Your task to perform on an android device: Add "bose quietcomfort 35" to the cart on walmart.com Image 0: 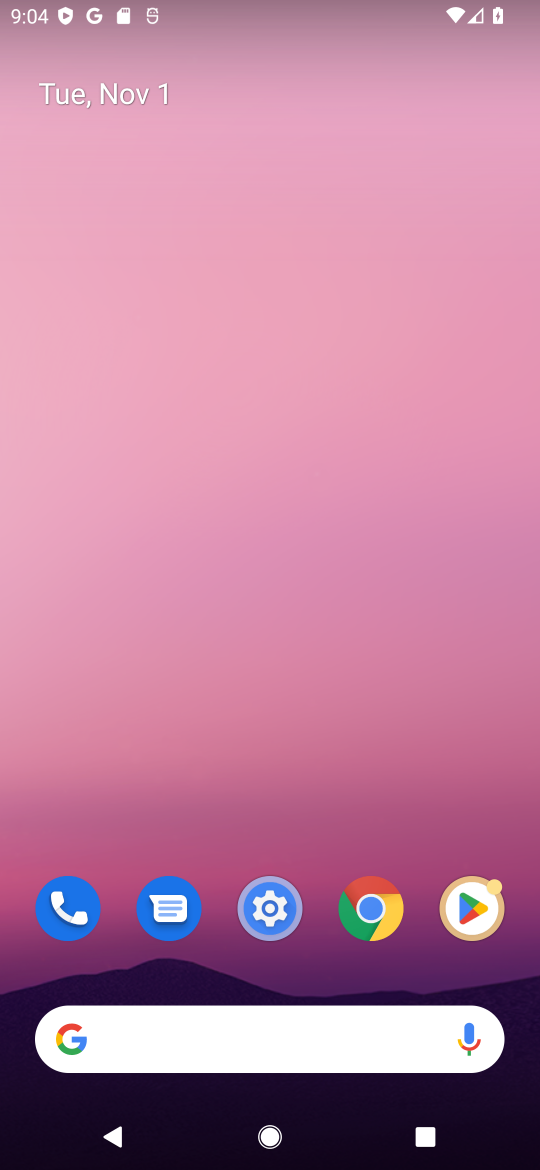
Step 0: click (373, 917)
Your task to perform on an android device: Add "bose quietcomfort 35" to the cart on walmart.com Image 1: 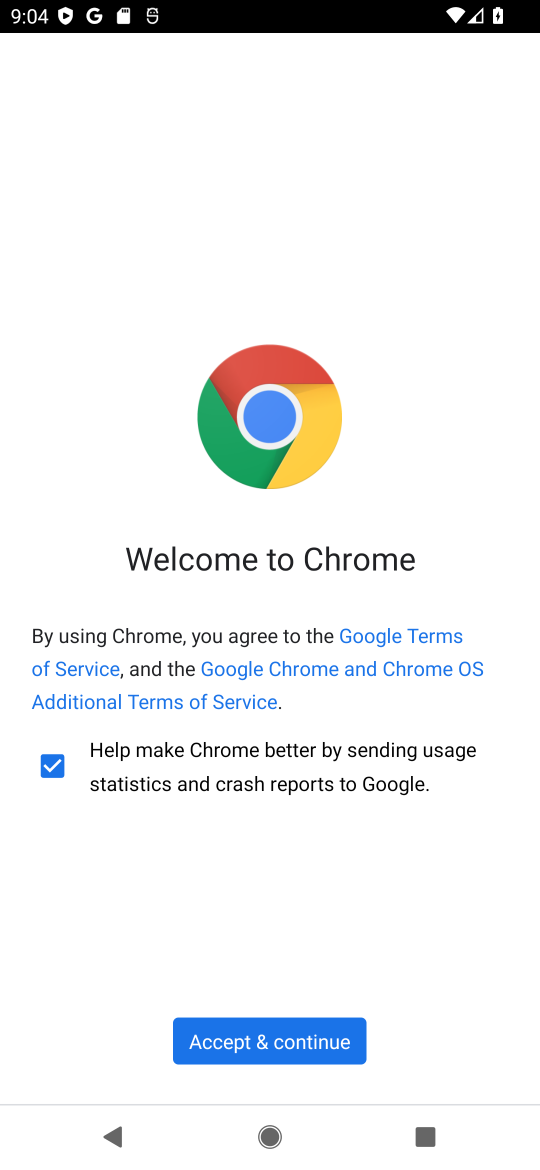
Step 1: click (312, 1054)
Your task to perform on an android device: Add "bose quietcomfort 35" to the cart on walmart.com Image 2: 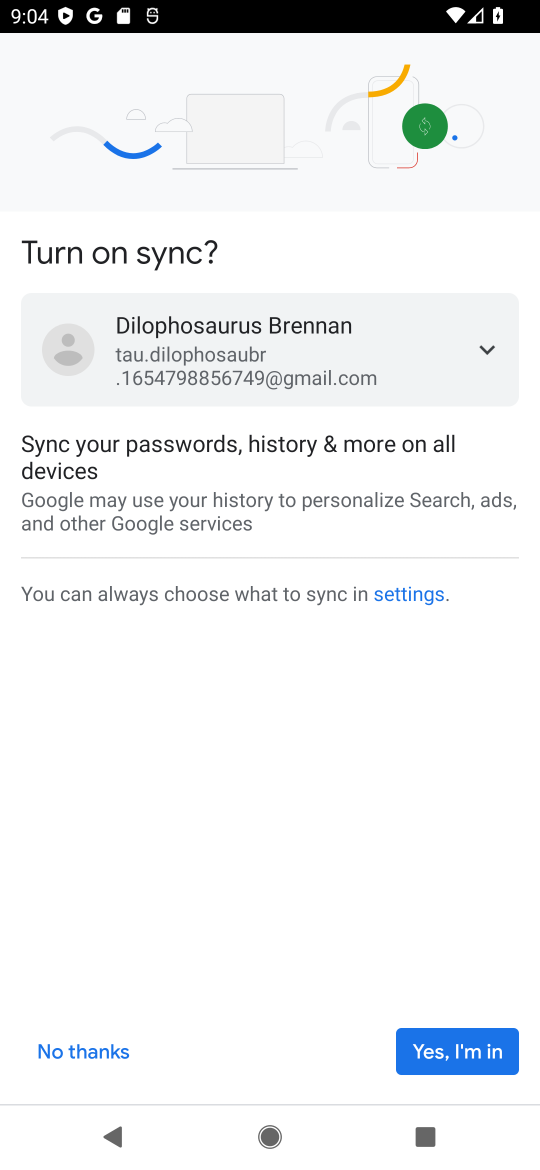
Step 2: click (448, 1041)
Your task to perform on an android device: Add "bose quietcomfort 35" to the cart on walmart.com Image 3: 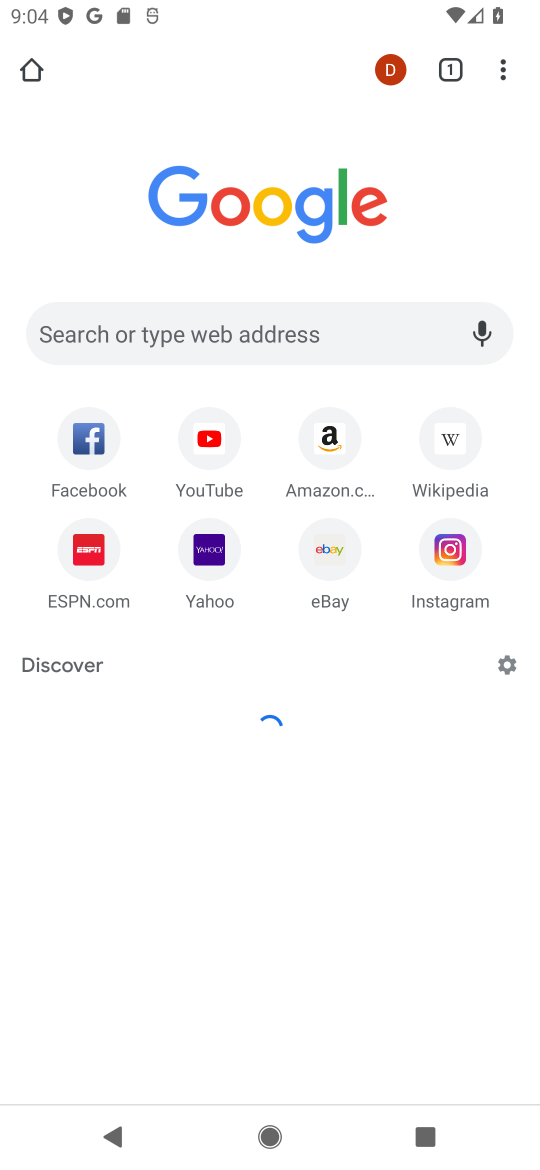
Step 3: click (283, 319)
Your task to perform on an android device: Add "bose quietcomfort 35" to the cart on walmart.com Image 4: 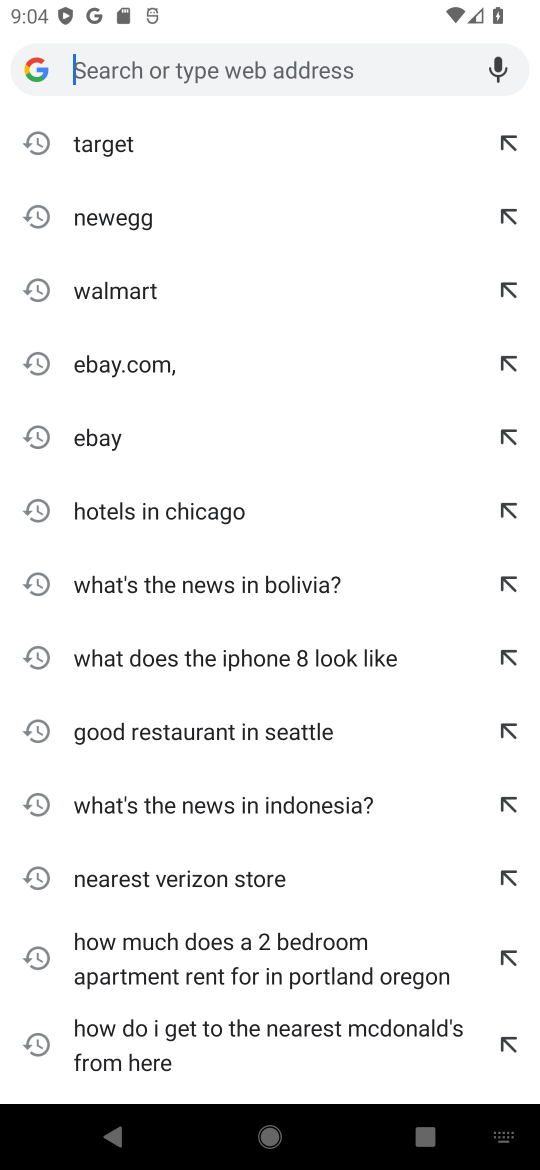
Step 4: type "walmart.com"
Your task to perform on an android device: Add "bose quietcomfort 35" to the cart on walmart.com Image 5: 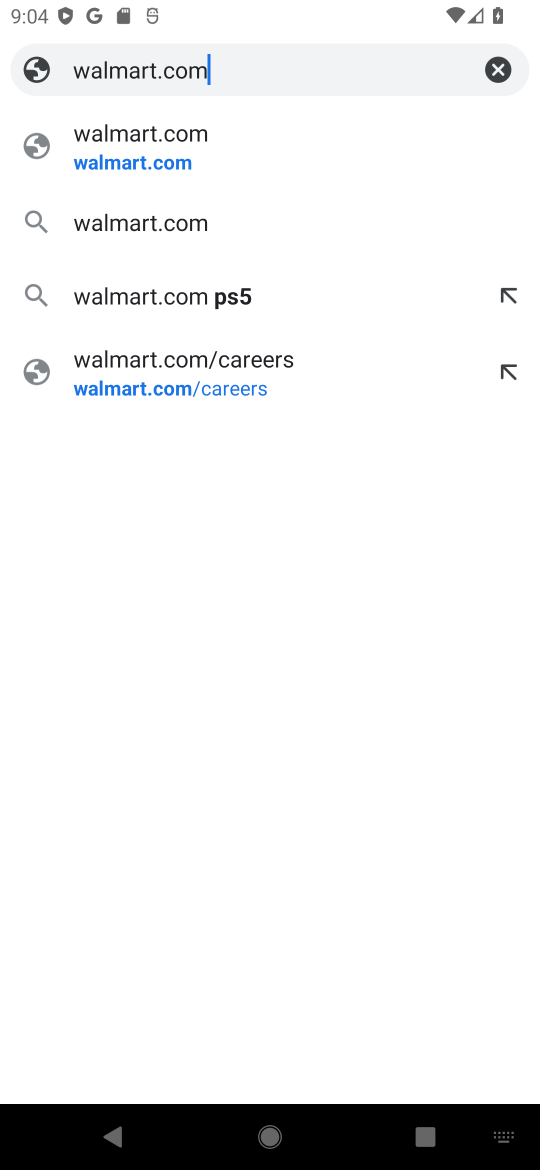
Step 5: press enter
Your task to perform on an android device: Add "bose quietcomfort 35" to the cart on walmart.com Image 6: 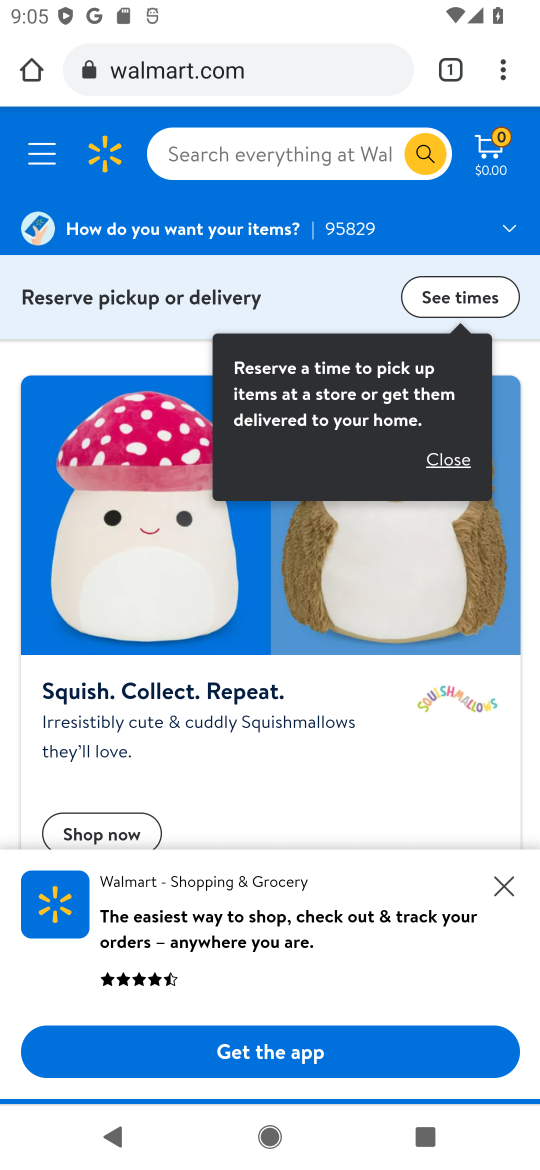
Step 6: click (504, 883)
Your task to perform on an android device: Add "bose quietcomfort 35" to the cart on walmart.com Image 7: 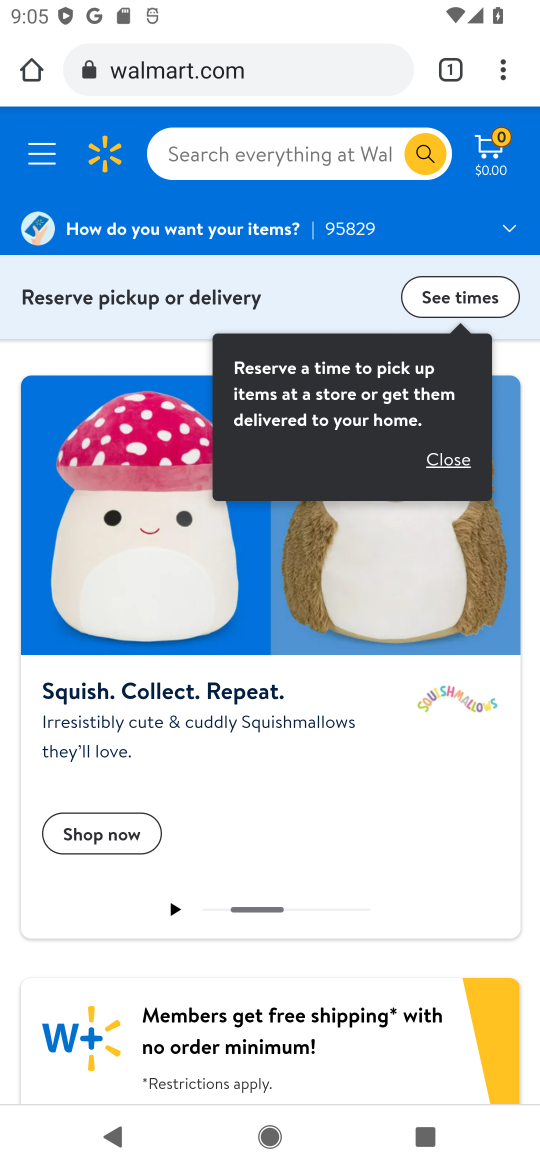
Step 7: click (303, 161)
Your task to perform on an android device: Add "bose quietcomfort 35" to the cart on walmart.com Image 8: 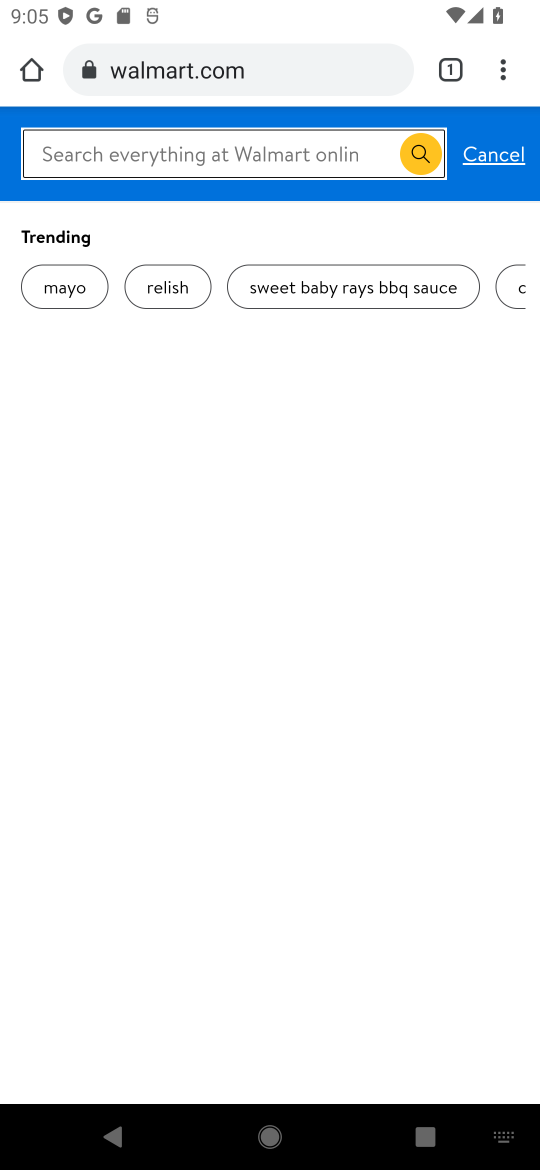
Step 8: type "bose quietcomfort 35"
Your task to perform on an android device: Add "bose quietcomfort 35" to the cart on walmart.com Image 9: 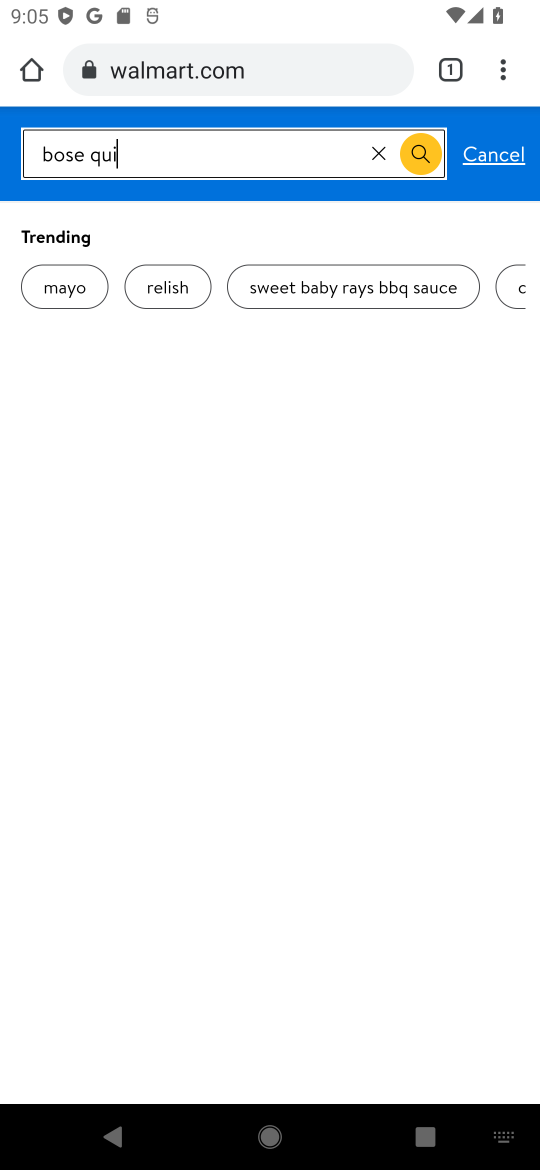
Step 9: type ""
Your task to perform on an android device: Add "bose quietcomfort 35" to the cart on walmart.com Image 10: 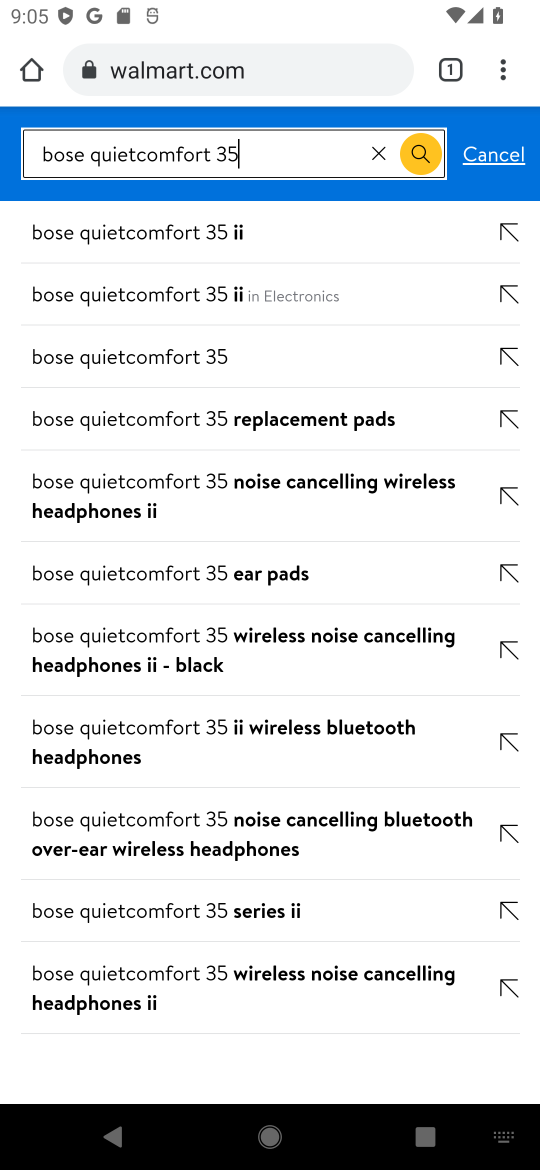
Step 10: press enter
Your task to perform on an android device: Add "bose quietcomfort 35" to the cart on walmart.com Image 11: 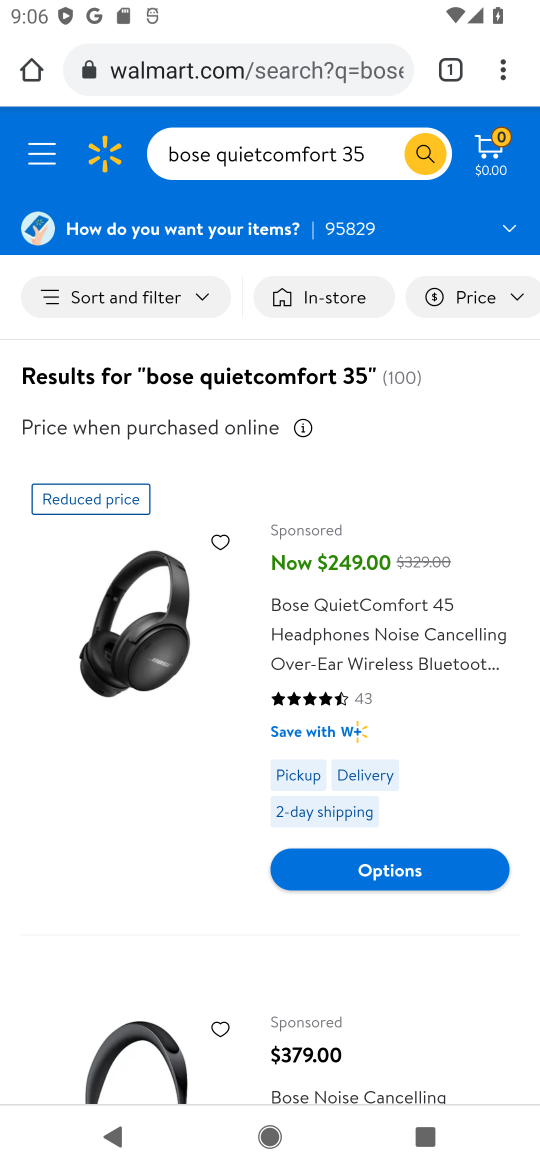
Step 11: drag from (412, 829) to (328, 376)
Your task to perform on an android device: Add "bose quietcomfort 35" to the cart on walmart.com Image 12: 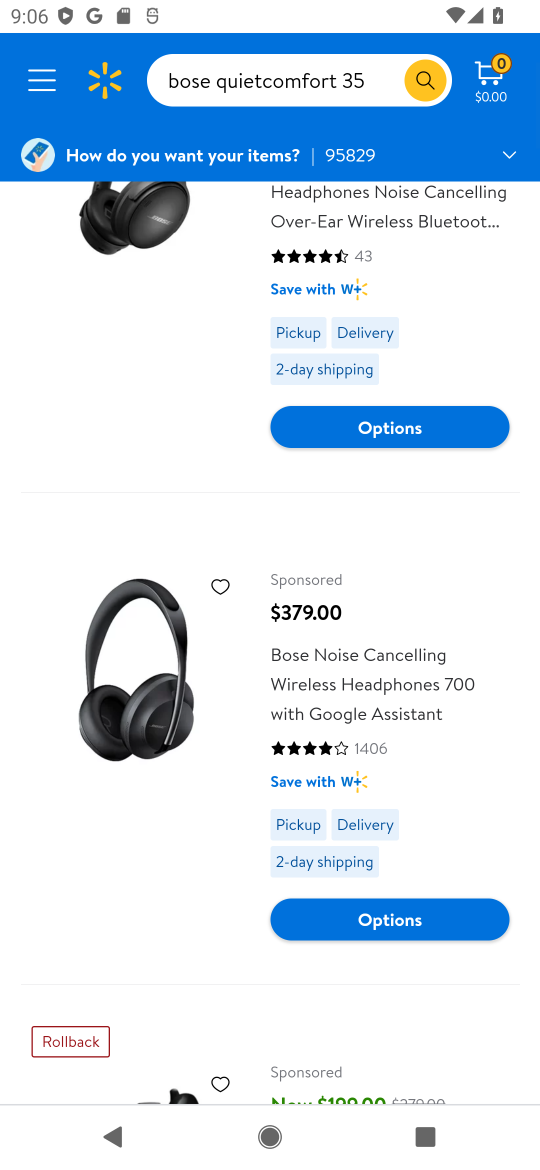
Step 12: drag from (393, 1023) to (379, 333)
Your task to perform on an android device: Add "bose quietcomfort 35" to the cart on walmart.com Image 13: 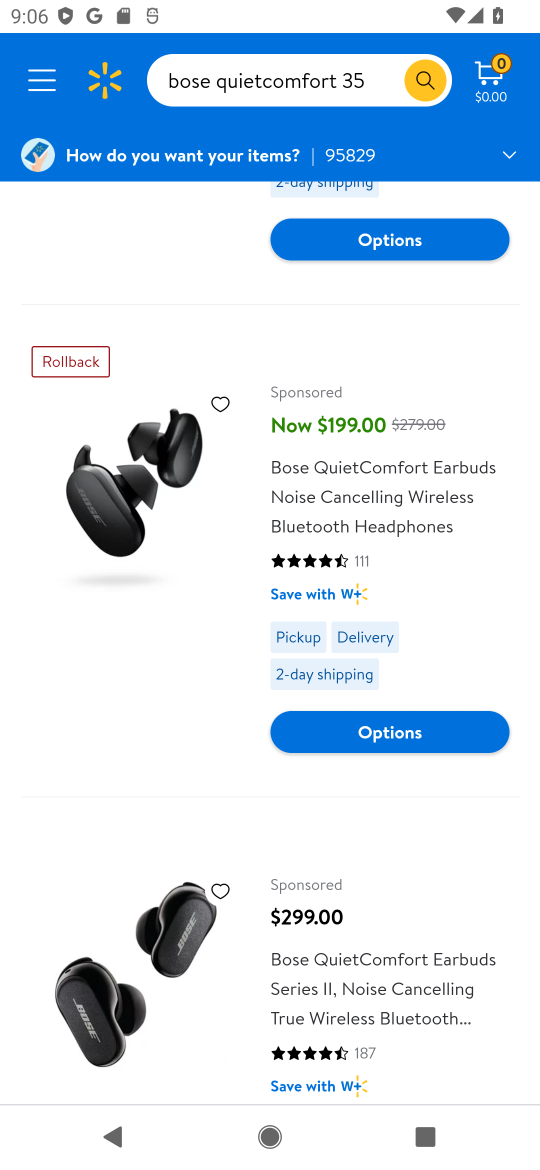
Step 13: drag from (400, 1025) to (413, 268)
Your task to perform on an android device: Add "bose quietcomfort 35" to the cart on walmart.com Image 14: 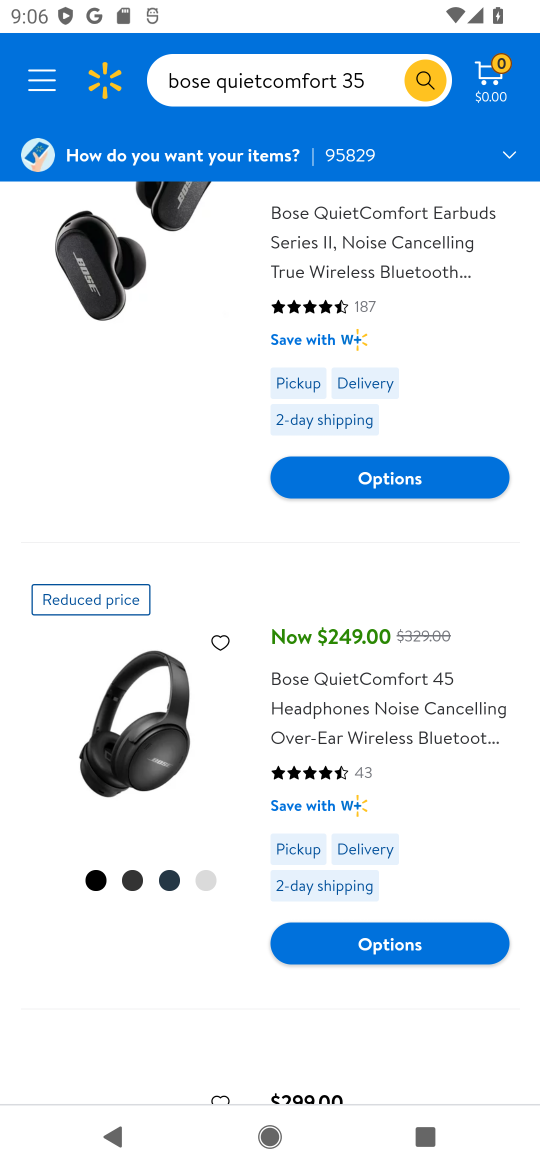
Step 14: drag from (426, 367) to (421, 135)
Your task to perform on an android device: Add "bose quietcomfort 35" to the cart on walmart.com Image 15: 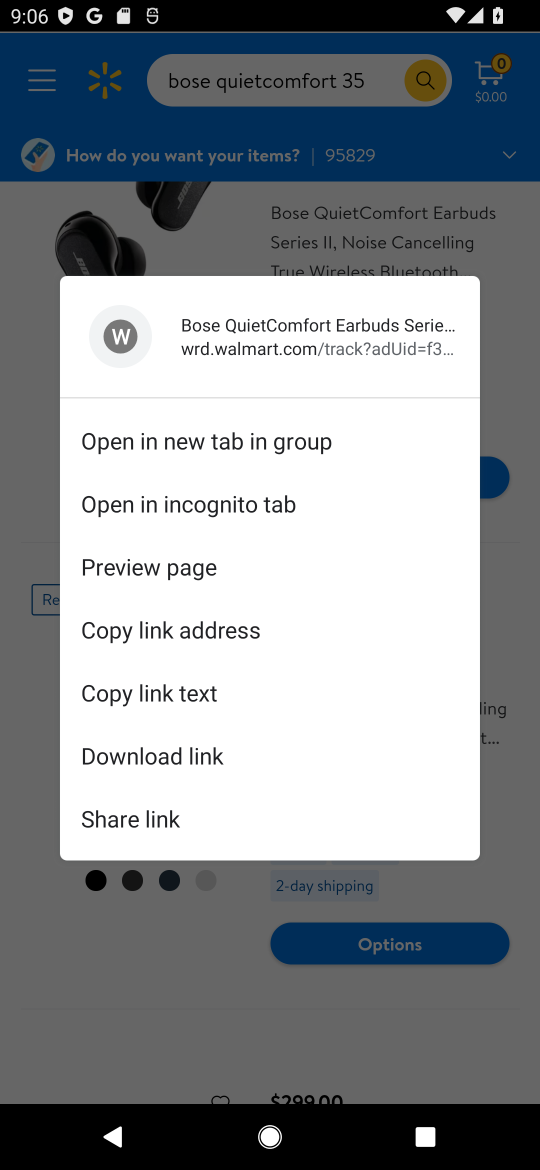
Step 15: click (531, 669)
Your task to perform on an android device: Add "bose quietcomfort 35" to the cart on walmart.com Image 16: 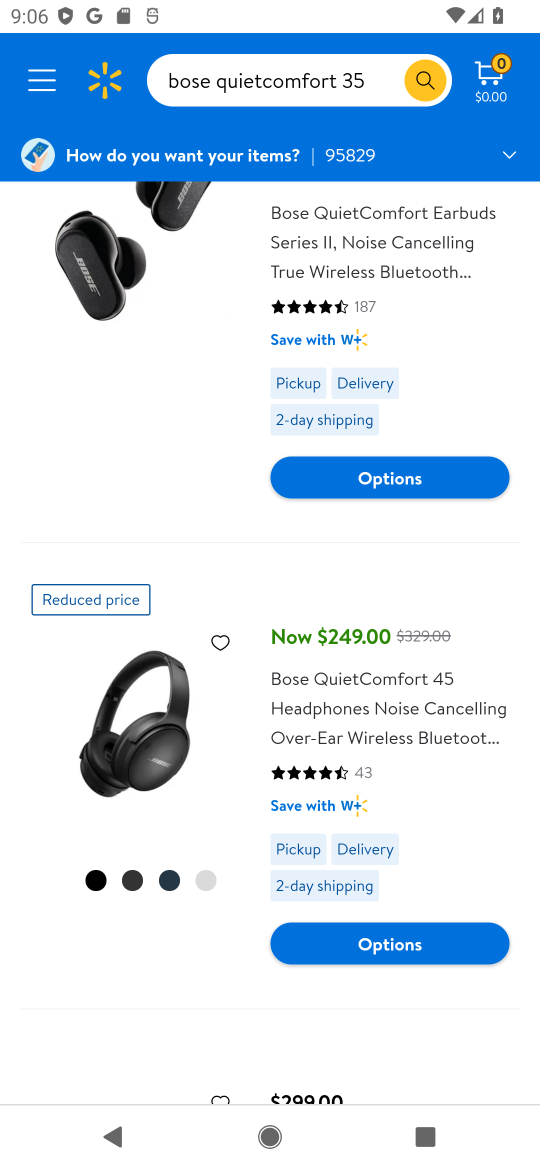
Step 16: drag from (431, 881) to (467, 181)
Your task to perform on an android device: Add "bose quietcomfort 35" to the cart on walmart.com Image 17: 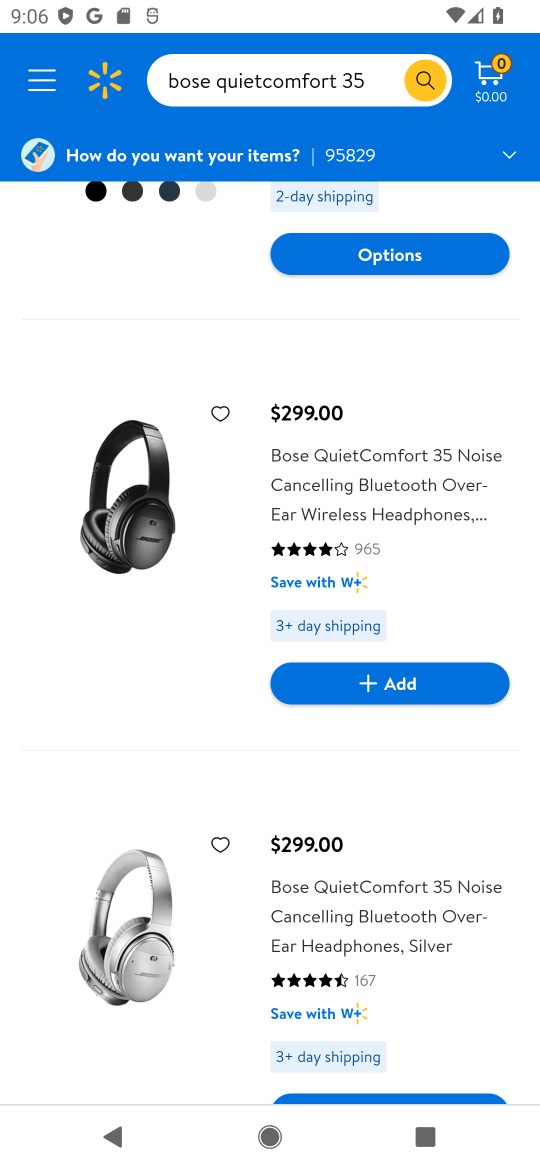
Step 17: drag from (442, 957) to (424, 648)
Your task to perform on an android device: Add "bose quietcomfort 35" to the cart on walmart.com Image 18: 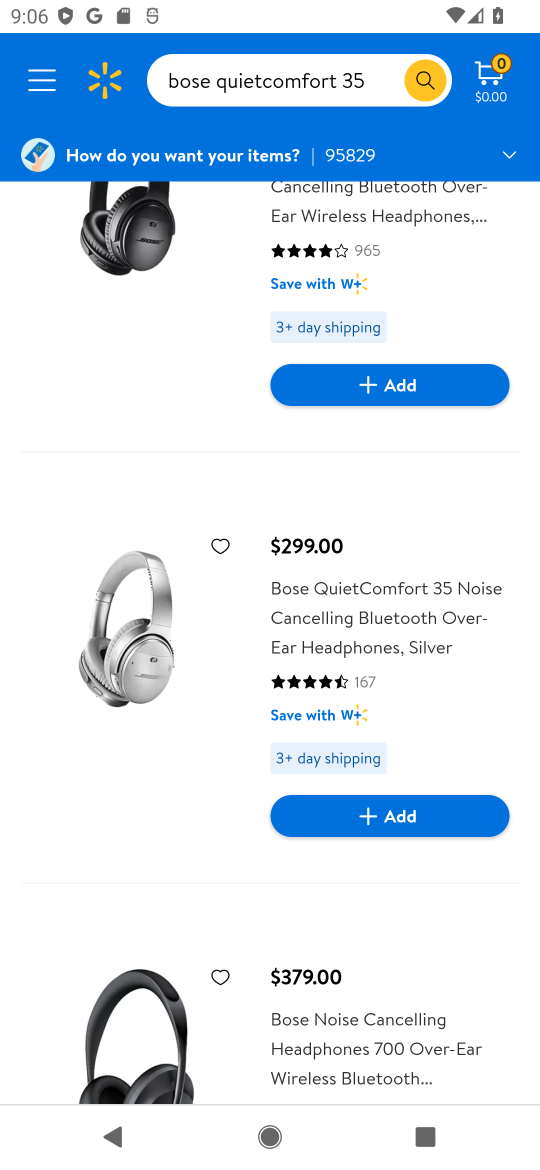
Step 18: click (356, 627)
Your task to perform on an android device: Add "bose quietcomfort 35" to the cart on walmart.com Image 19: 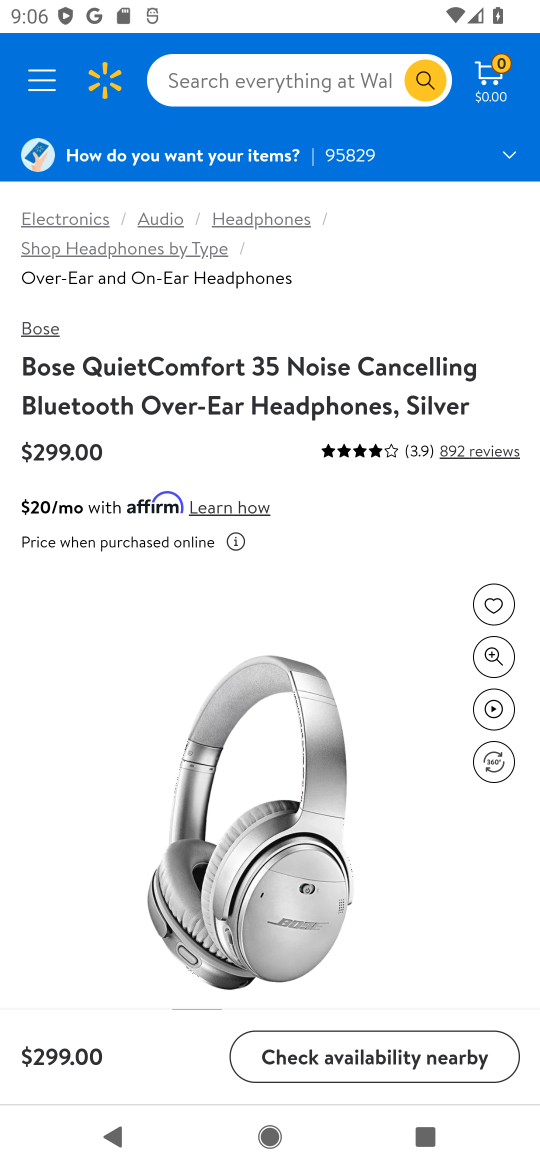
Step 19: drag from (374, 980) to (372, 731)
Your task to perform on an android device: Add "bose quietcomfort 35" to the cart on walmart.com Image 20: 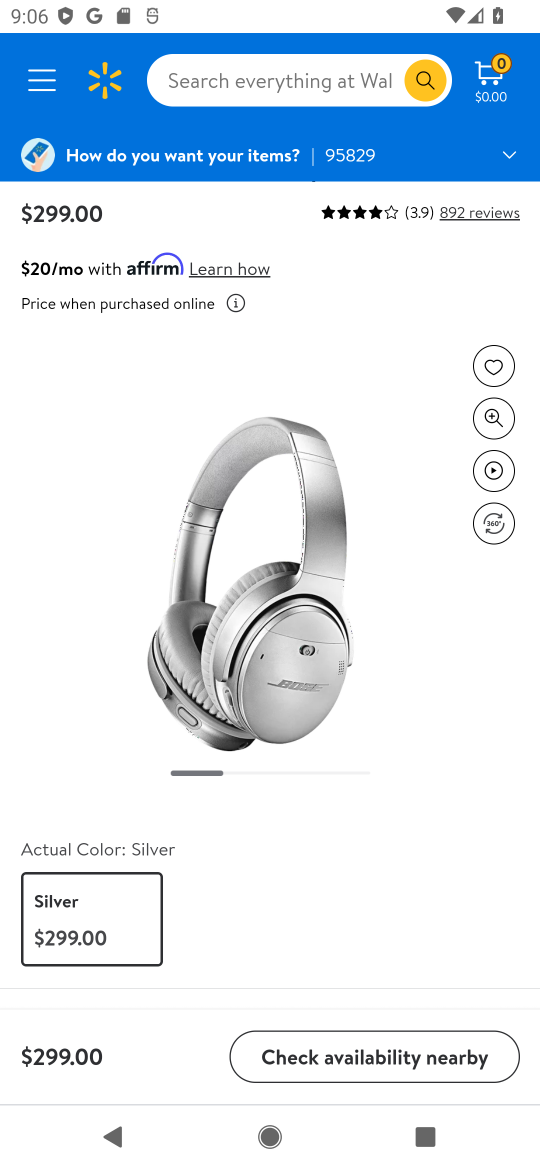
Step 20: click (399, 1065)
Your task to perform on an android device: Add "bose quietcomfort 35" to the cart on walmart.com Image 21: 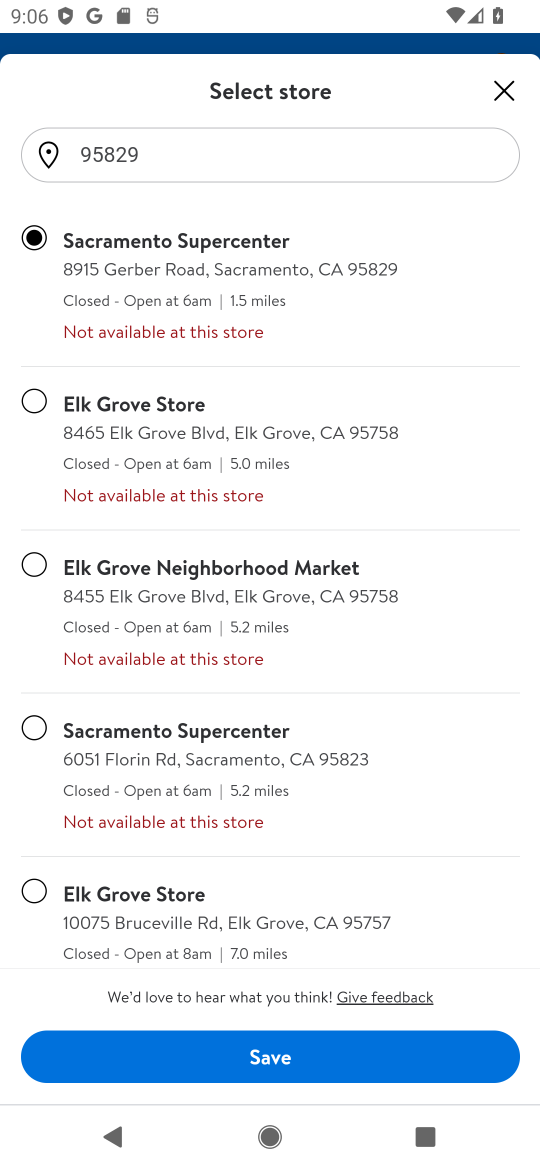
Step 21: click (399, 1065)
Your task to perform on an android device: Add "bose quietcomfort 35" to the cart on walmart.com Image 22: 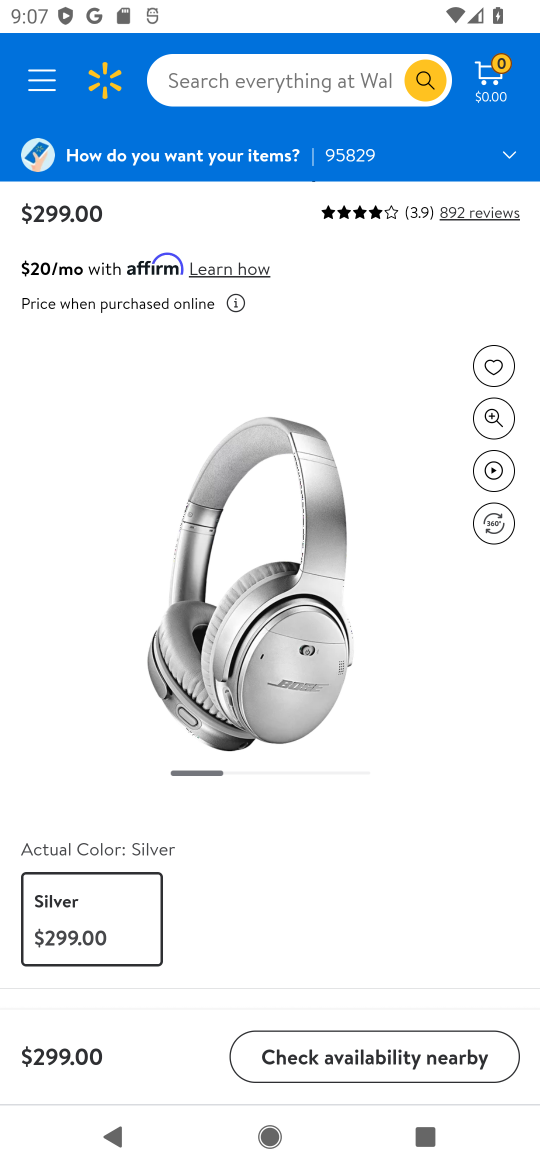
Step 22: task complete